Your task to perform on an android device: Go to wifi settings Image 0: 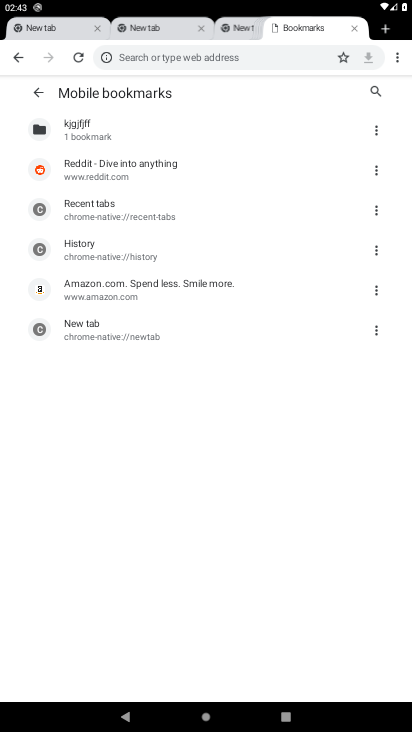
Step 0: press home button
Your task to perform on an android device: Go to wifi settings Image 1: 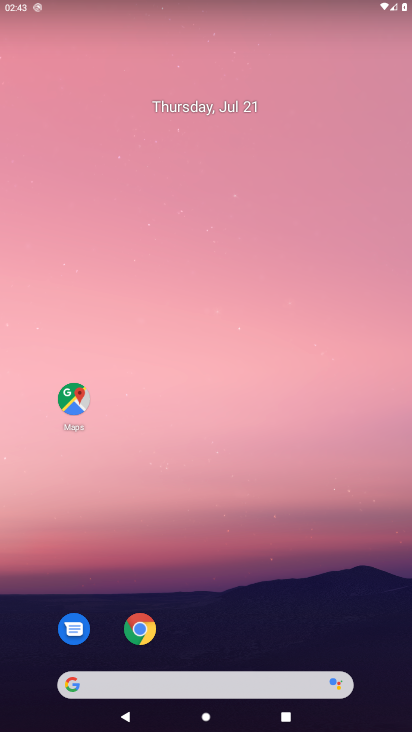
Step 1: drag from (36, 666) to (153, 210)
Your task to perform on an android device: Go to wifi settings Image 2: 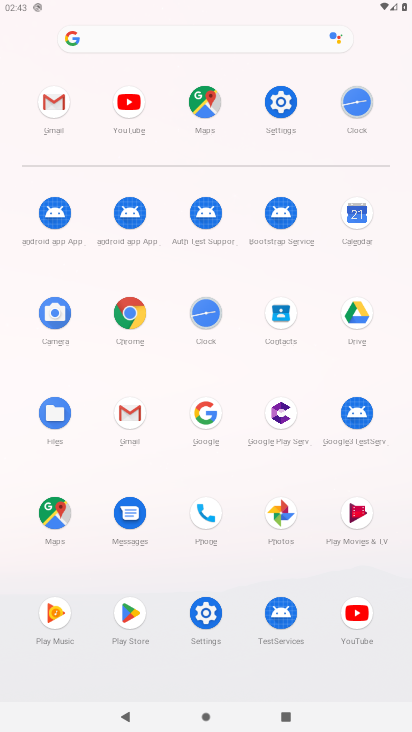
Step 2: click (203, 621)
Your task to perform on an android device: Go to wifi settings Image 3: 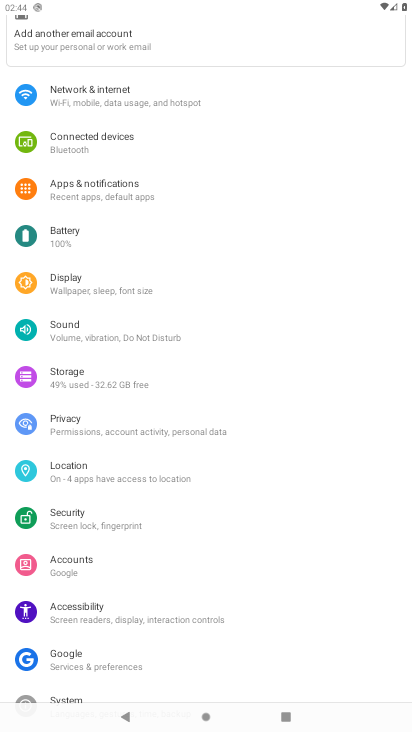
Step 3: click (124, 93)
Your task to perform on an android device: Go to wifi settings Image 4: 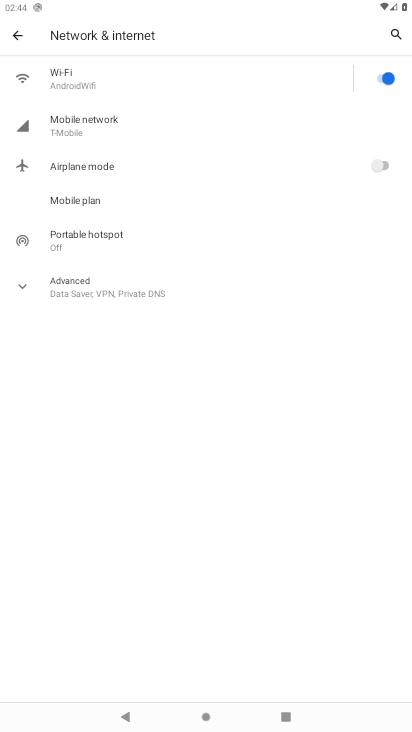
Step 4: task complete